Your task to perform on an android device: turn on location history Image 0: 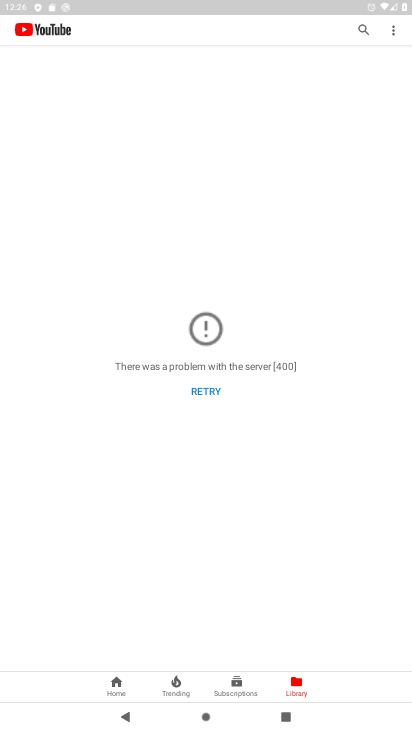
Step 0: press home button
Your task to perform on an android device: turn on location history Image 1: 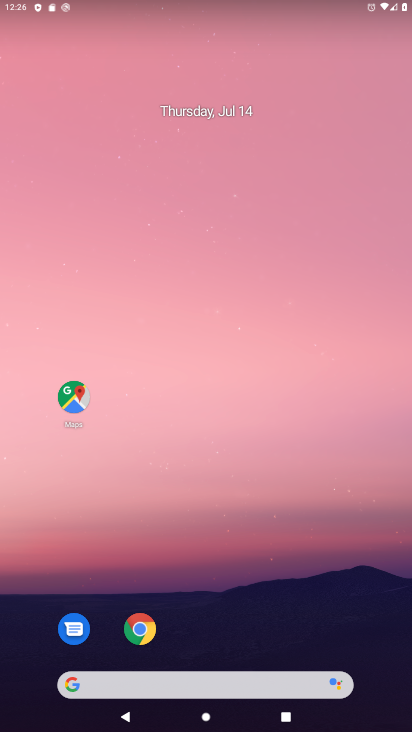
Step 1: drag from (191, 639) to (165, 238)
Your task to perform on an android device: turn on location history Image 2: 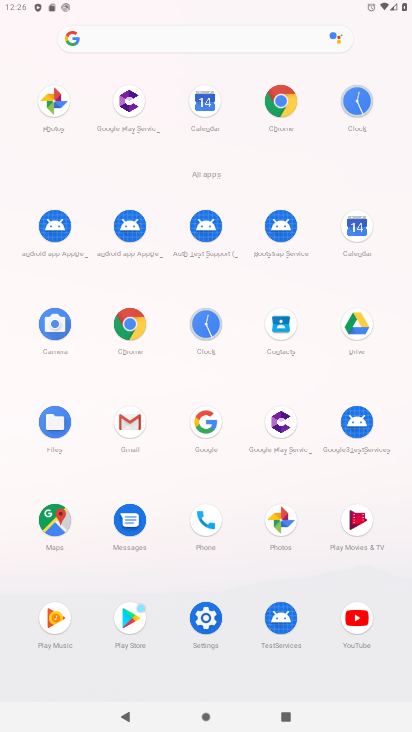
Step 2: click (207, 614)
Your task to perform on an android device: turn on location history Image 3: 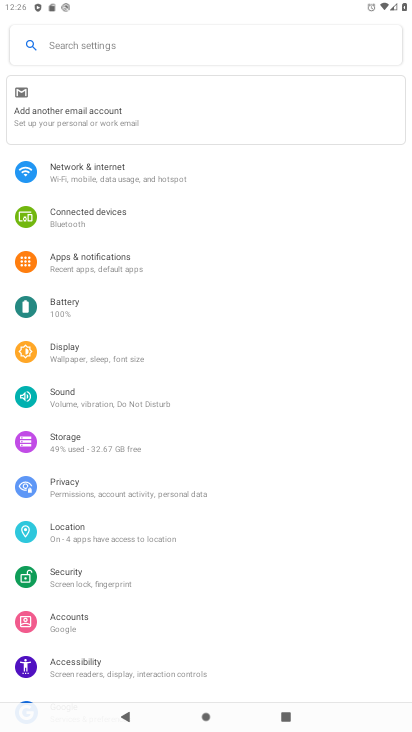
Step 3: click (109, 545)
Your task to perform on an android device: turn on location history Image 4: 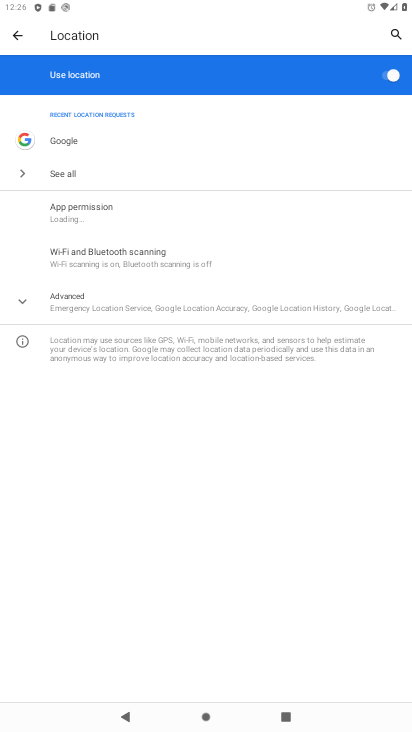
Step 4: click (24, 295)
Your task to perform on an android device: turn on location history Image 5: 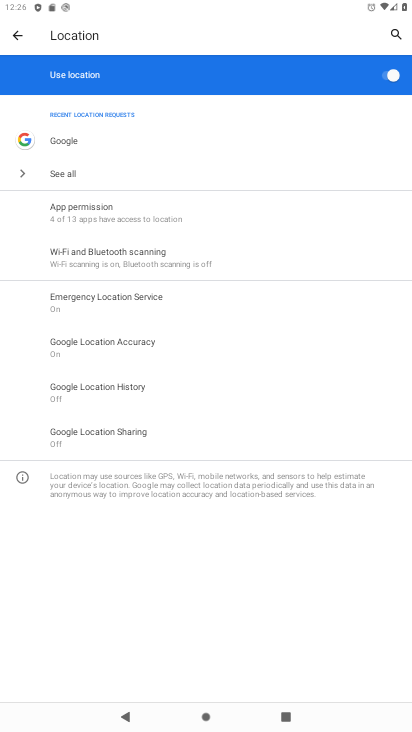
Step 5: click (91, 388)
Your task to perform on an android device: turn on location history Image 6: 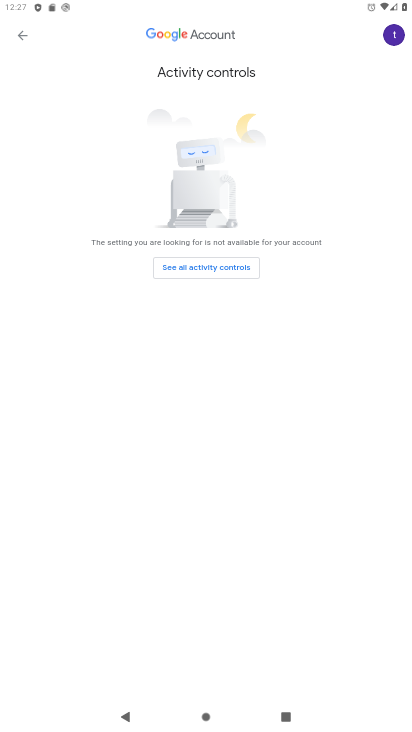
Step 6: click (191, 268)
Your task to perform on an android device: turn on location history Image 7: 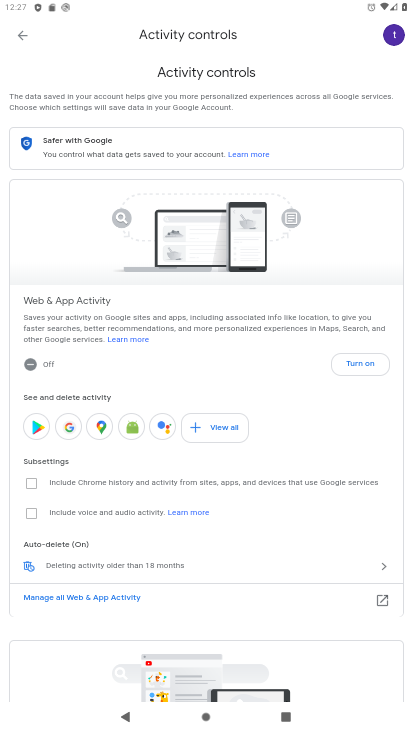
Step 7: click (348, 363)
Your task to perform on an android device: turn on location history Image 8: 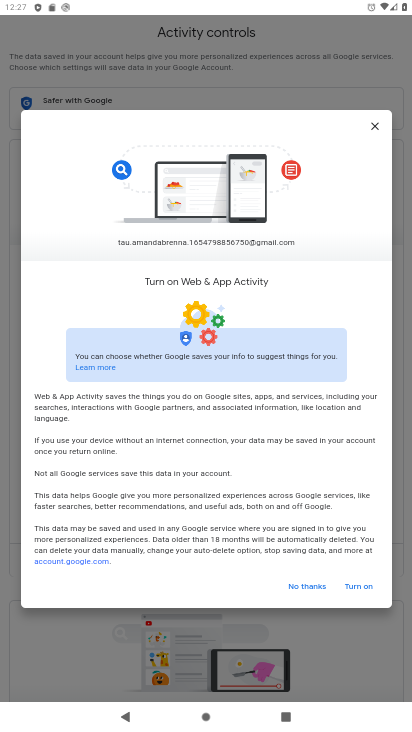
Step 8: click (349, 586)
Your task to perform on an android device: turn on location history Image 9: 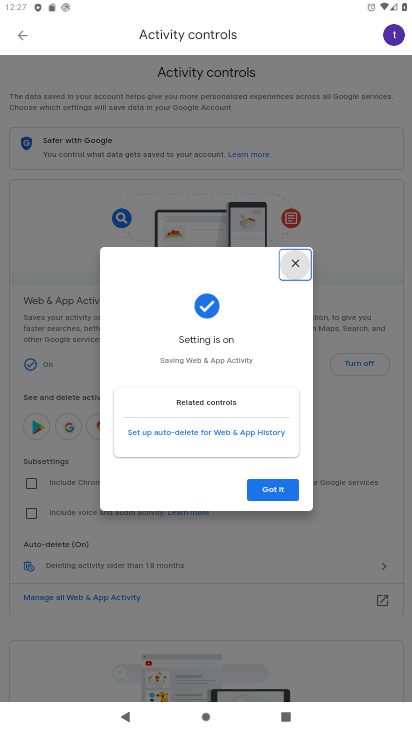
Step 9: click (274, 494)
Your task to perform on an android device: turn on location history Image 10: 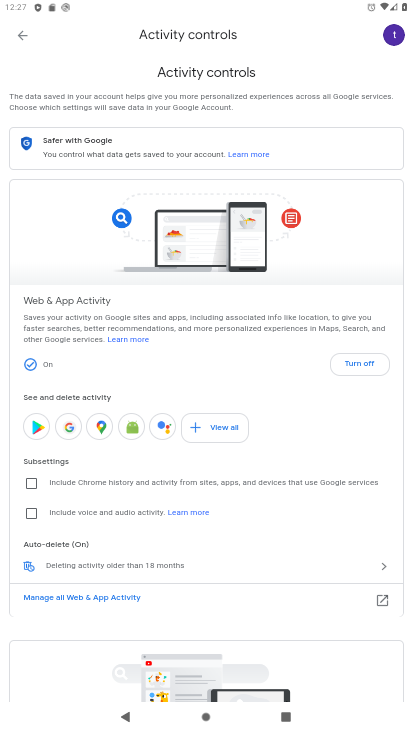
Step 10: task complete